Your task to perform on an android device: find snoozed emails in the gmail app Image 0: 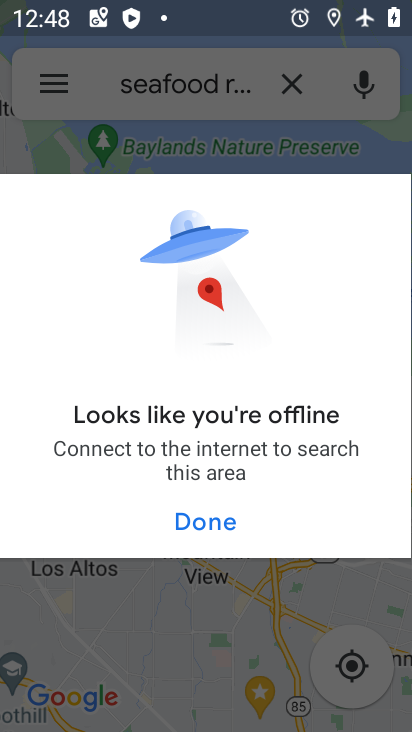
Step 0: press home button
Your task to perform on an android device: find snoozed emails in the gmail app Image 1: 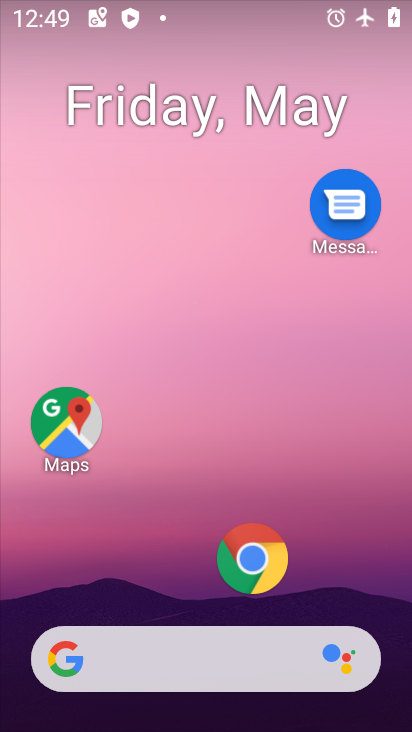
Step 1: drag from (197, 654) to (169, 236)
Your task to perform on an android device: find snoozed emails in the gmail app Image 2: 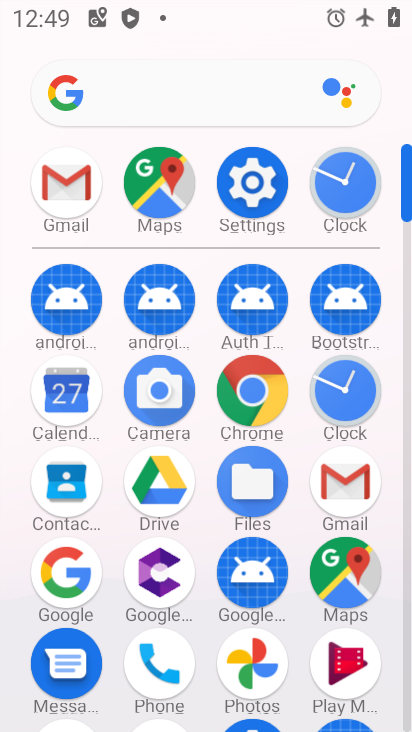
Step 2: click (353, 494)
Your task to perform on an android device: find snoozed emails in the gmail app Image 3: 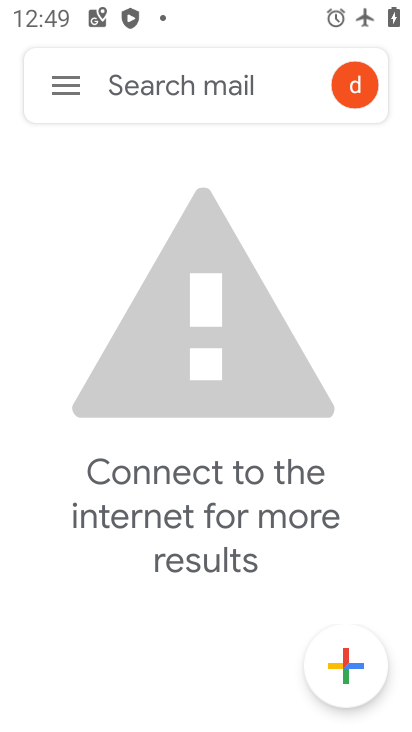
Step 3: click (53, 92)
Your task to perform on an android device: find snoozed emails in the gmail app Image 4: 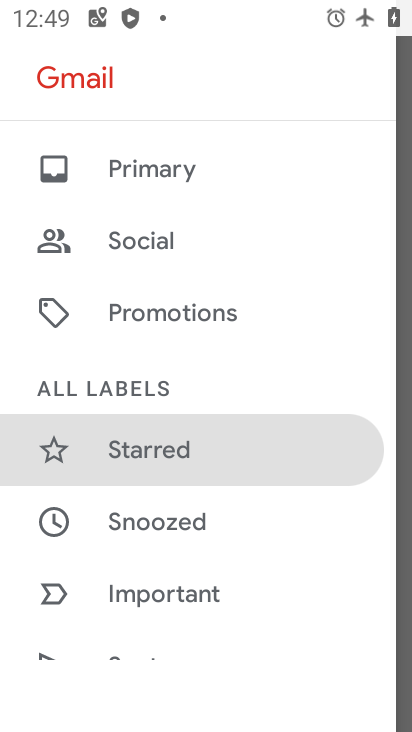
Step 4: drag from (163, 528) to (173, 359)
Your task to perform on an android device: find snoozed emails in the gmail app Image 5: 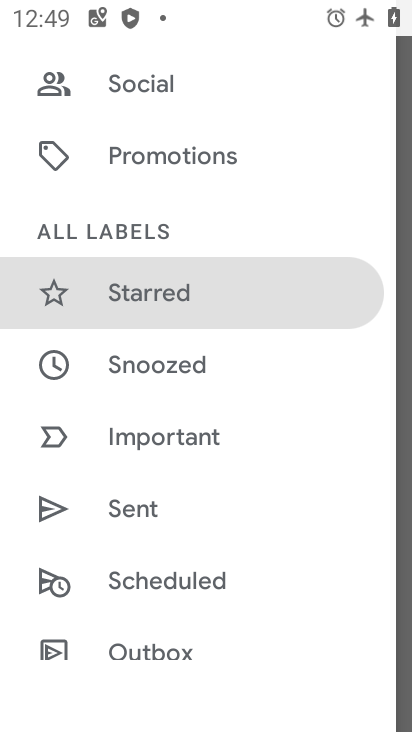
Step 5: click (161, 364)
Your task to perform on an android device: find snoozed emails in the gmail app Image 6: 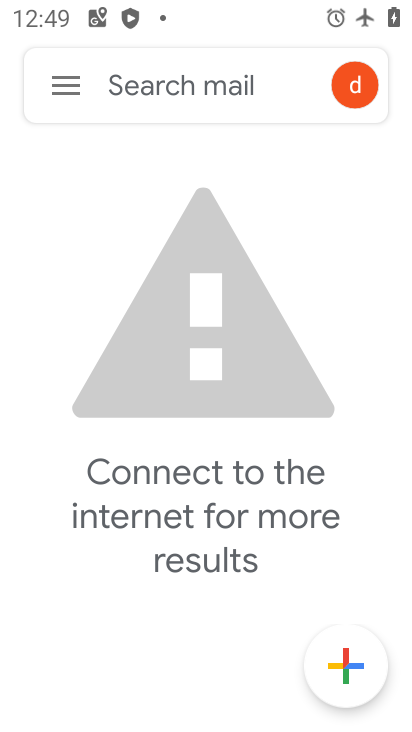
Step 6: task complete